Your task to perform on an android device: Open Chrome and go to settings Image 0: 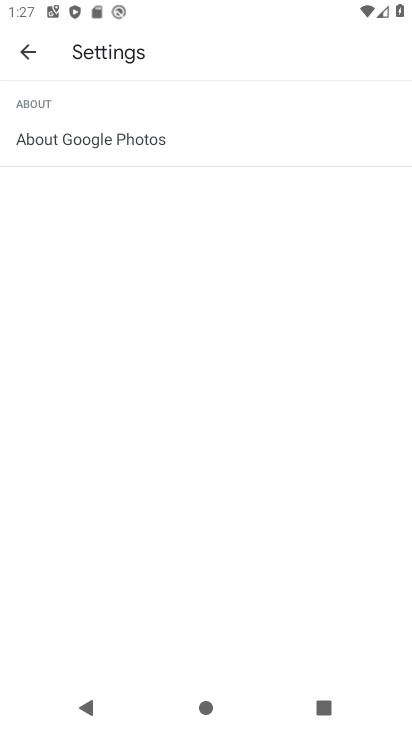
Step 0: press home button
Your task to perform on an android device: Open Chrome and go to settings Image 1: 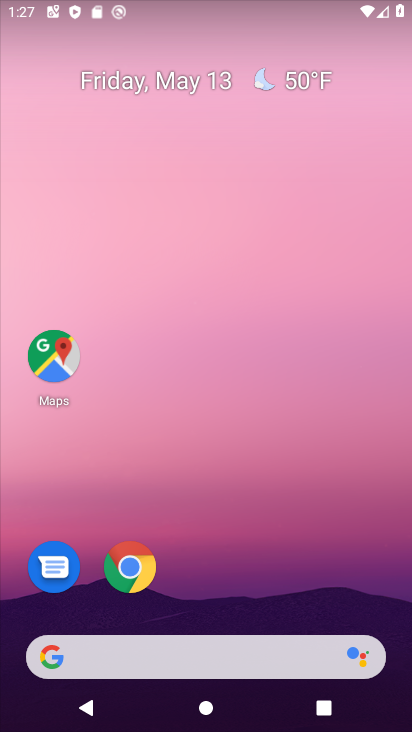
Step 1: click (137, 563)
Your task to perform on an android device: Open Chrome and go to settings Image 2: 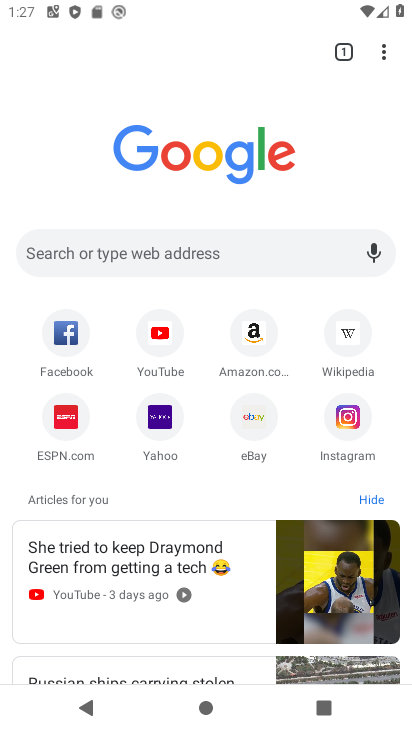
Step 2: click (385, 58)
Your task to perform on an android device: Open Chrome and go to settings Image 3: 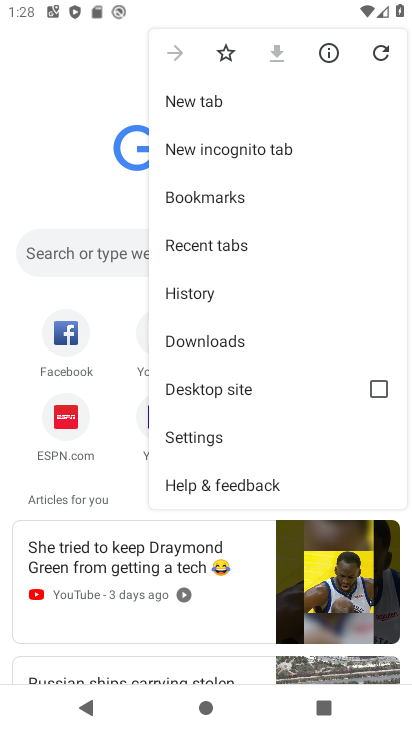
Step 3: click (186, 441)
Your task to perform on an android device: Open Chrome and go to settings Image 4: 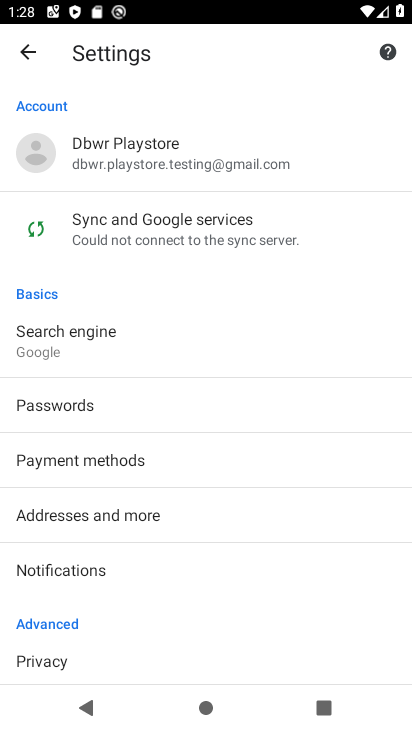
Step 4: task complete